Your task to perform on an android device: Open Maps and search for coffee Image 0: 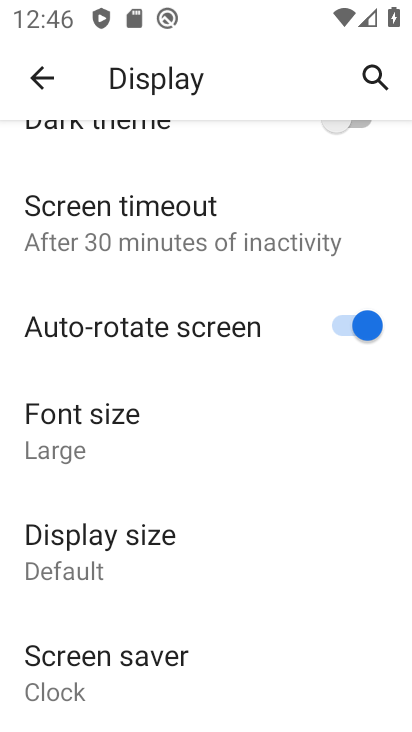
Step 0: press home button
Your task to perform on an android device: Open Maps and search for coffee Image 1: 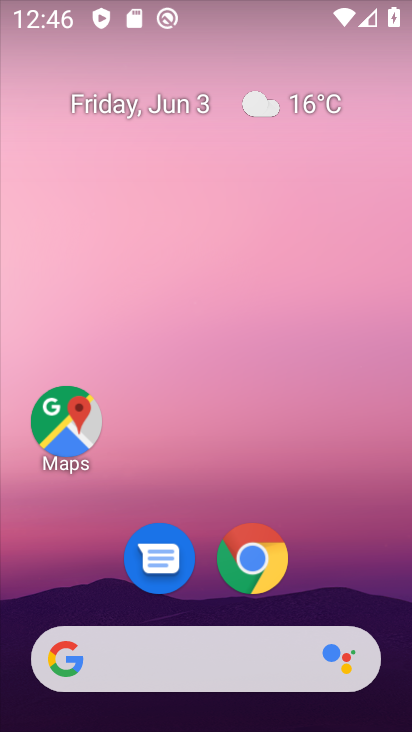
Step 1: drag from (353, 593) to (354, 278)
Your task to perform on an android device: Open Maps and search for coffee Image 2: 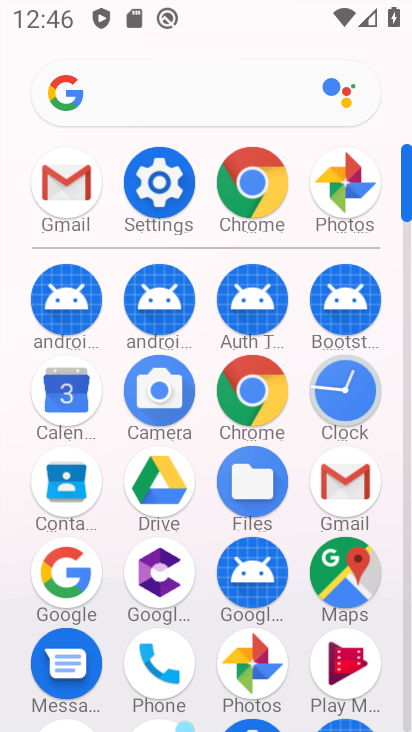
Step 2: click (374, 578)
Your task to perform on an android device: Open Maps and search for coffee Image 3: 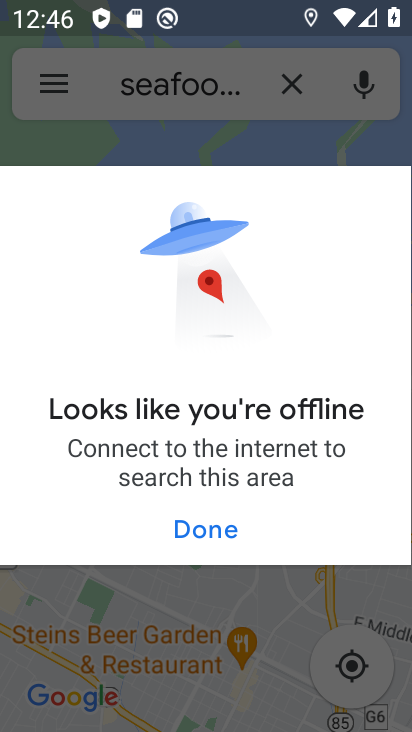
Step 3: press back button
Your task to perform on an android device: Open Maps and search for coffee Image 4: 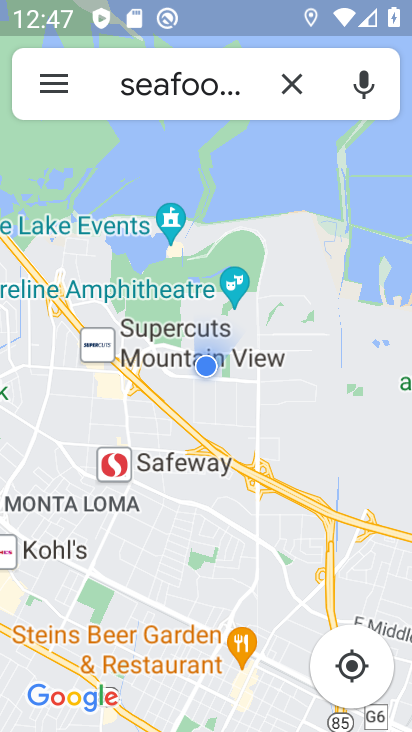
Step 4: click (295, 87)
Your task to perform on an android device: Open Maps and search for coffee Image 5: 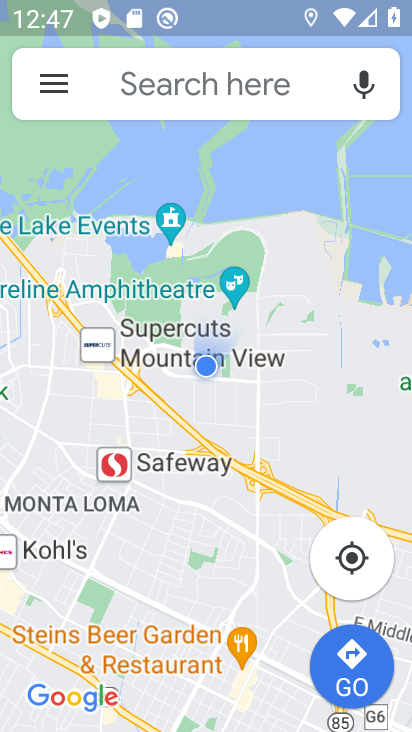
Step 5: click (188, 86)
Your task to perform on an android device: Open Maps and search for coffee Image 6: 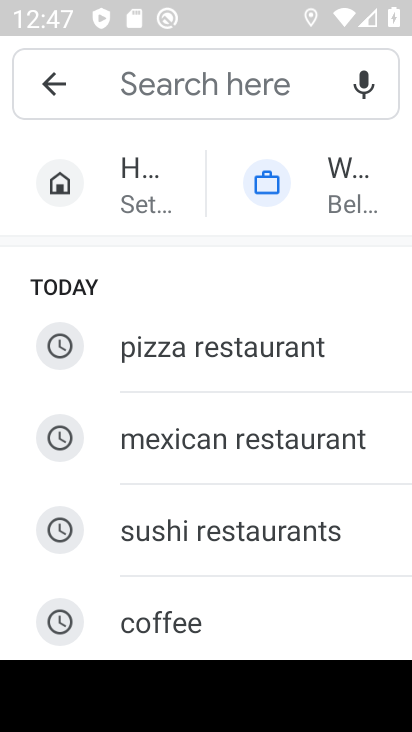
Step 6: type "coffee"
Your task to perform on an android device: Open Maps and search for coffee Image 7: 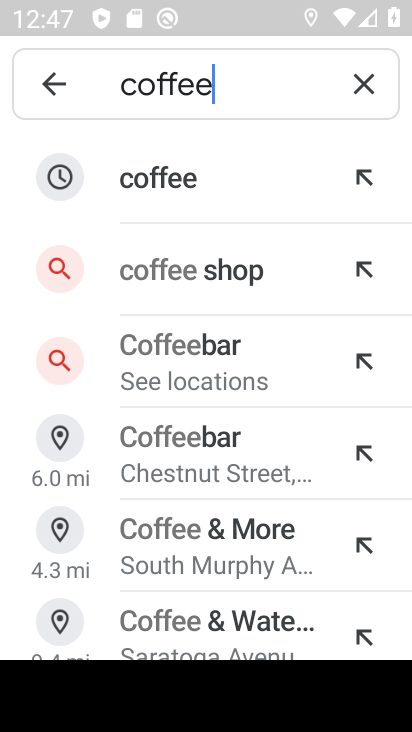
Step 7: click (184, 179)
Your task to perform on an android device: Open Maps and search for coffee Image 8: 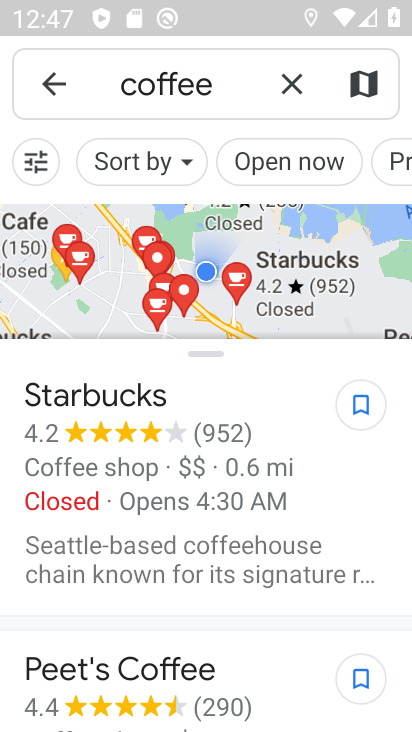
Step 8: task complete